Your task to perform on an android device: create a new album in the google photos Image 0: 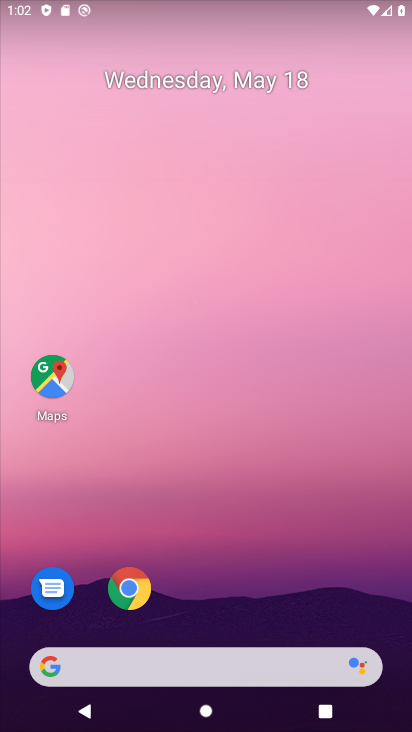
Step 0: drag from (365, 593) to (362, 155)
Your task to perform on an android device: create a new album in the google photos Image 1: 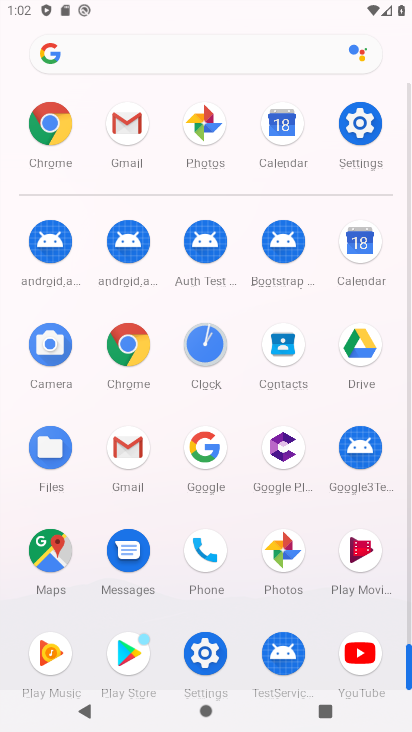
Step 1: click (285, 565)
Your task to perform on an android device: create a new album in the google photos Image 2: 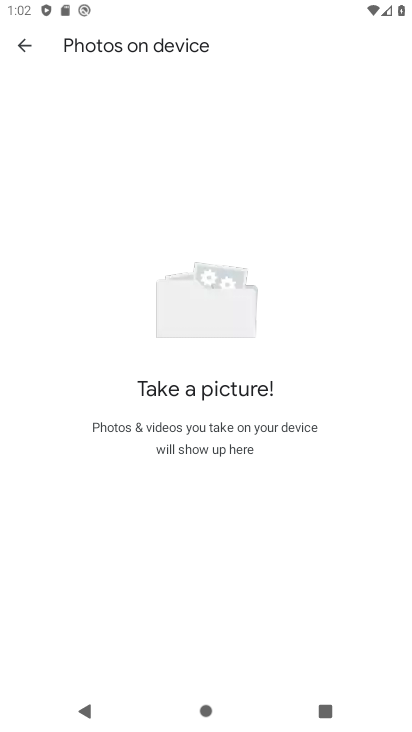
Step 2: click (27, 50)
Your task to perform on an android device: create a new album in the google photos Image 3: 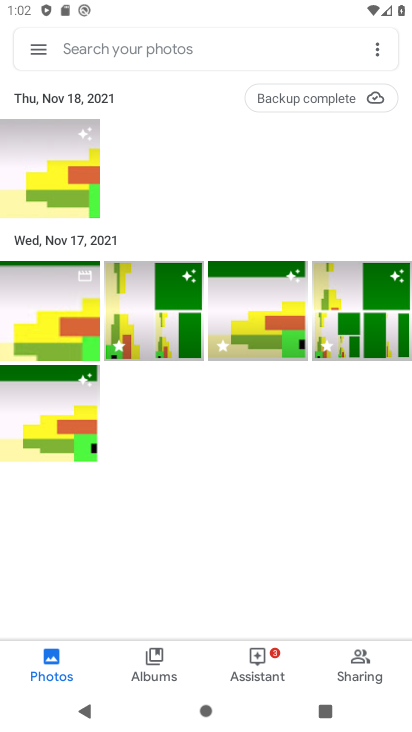
Step 3: click (140, 667)
Your task to perform on an android device: create a new album in the google photos Image 4: 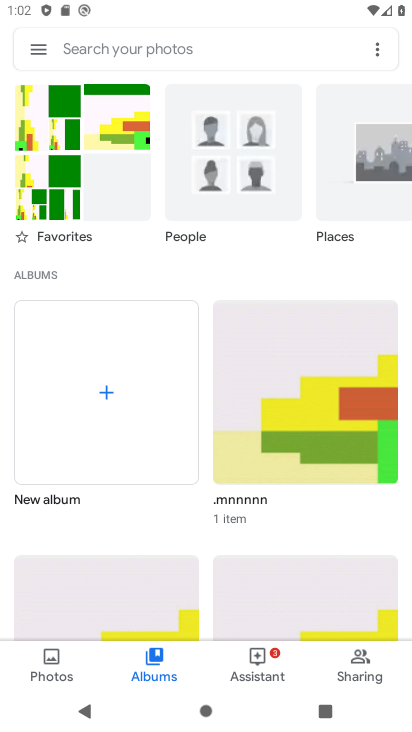
Step 4: click (99, 393)
Your task to perform on an android device: create a new album in the google photos Image 5: 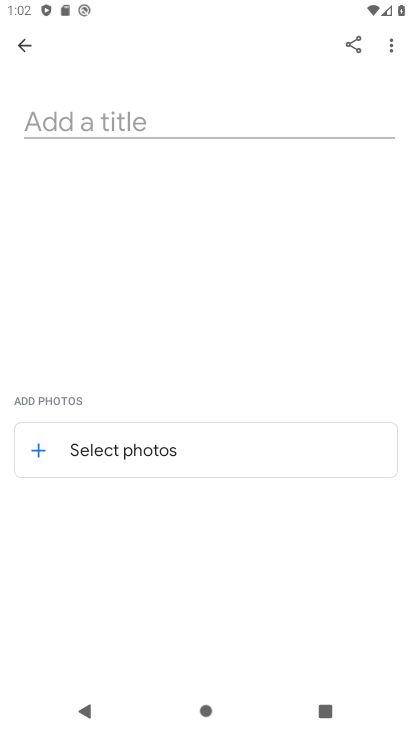
Step 5: click (202, 115)
Your task to perform on an android device: create a new album in the google photos Image 6: 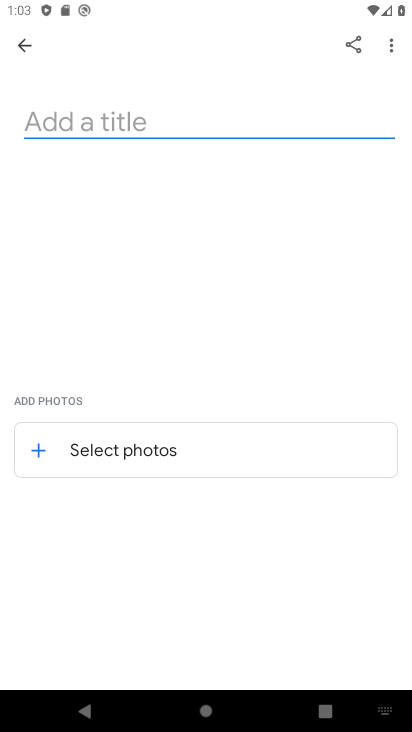
Step 6: type "fav"
Your task to perform on an android device: create a new album in the google photos Image 7: 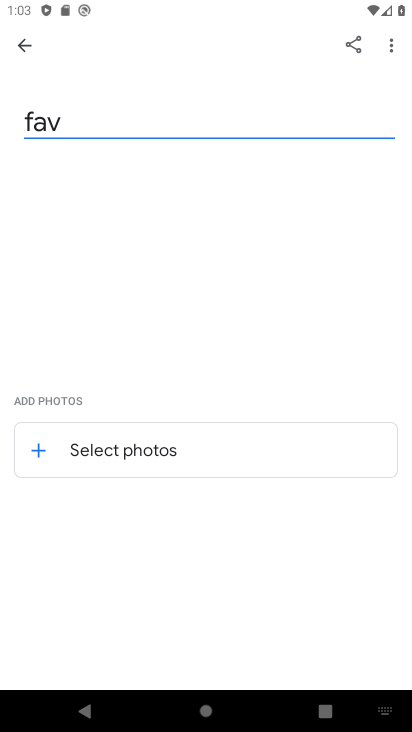
Step 7: click (74, 449)
Your task to perform on an android device: create a new album in the google photos Image 8: 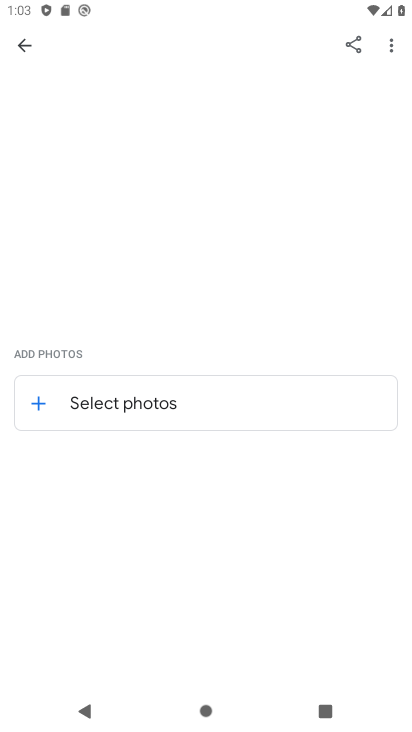
Step 8: click (65, 401)
Your task to perform on an android device: create a new album in the google photos Image 9: 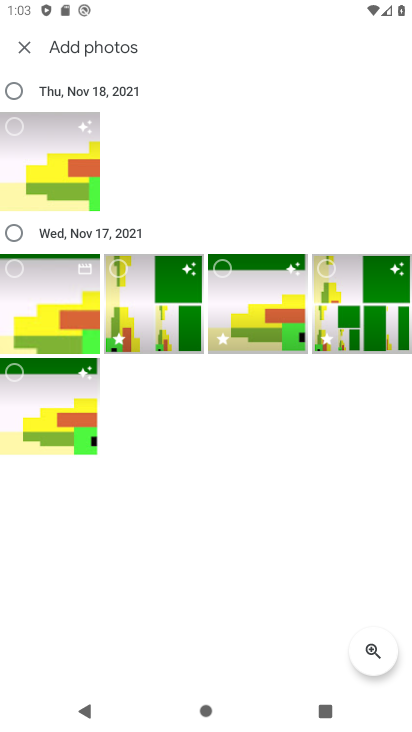
Step 9: click (38, 163)
Your task to perform on an android device: create a new album in the google photos Image 10: 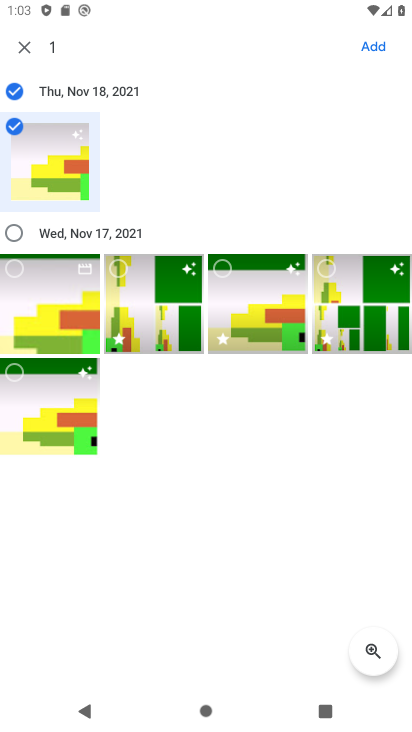
Step 10: click (389, 44)
Your task to perform on an android device: create a new album in the google photos Image 11: 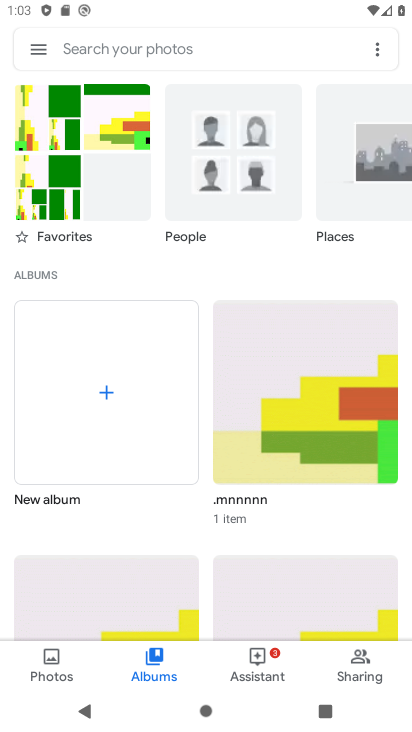
Step 11: task complete